Your task to perform on an android device: Search for hotels in Philadelphia Image 0: 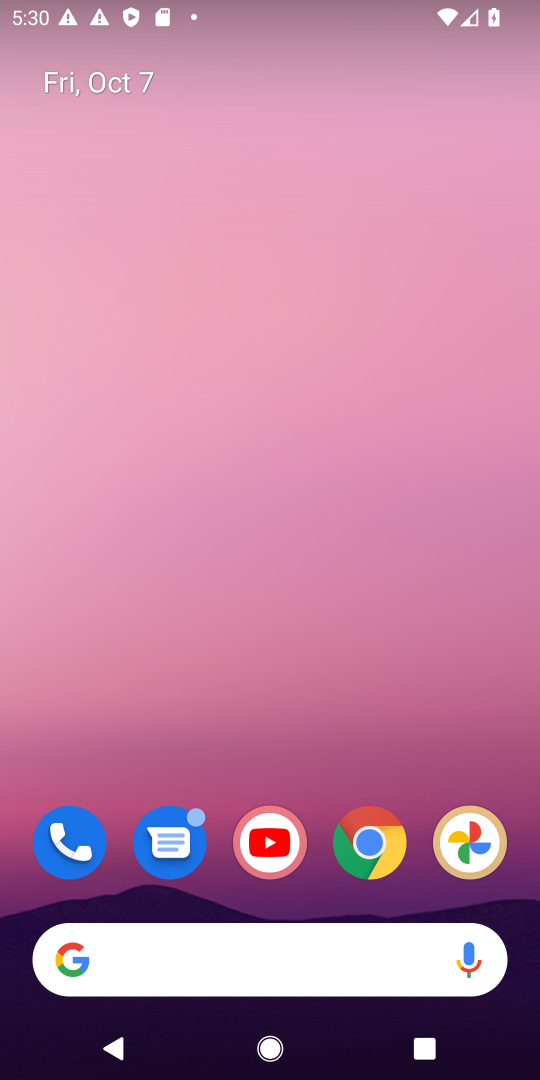
Step 0: click (228, 972)
Your task to perform on an android device: Search for hotels in Philadelphia Image 1: 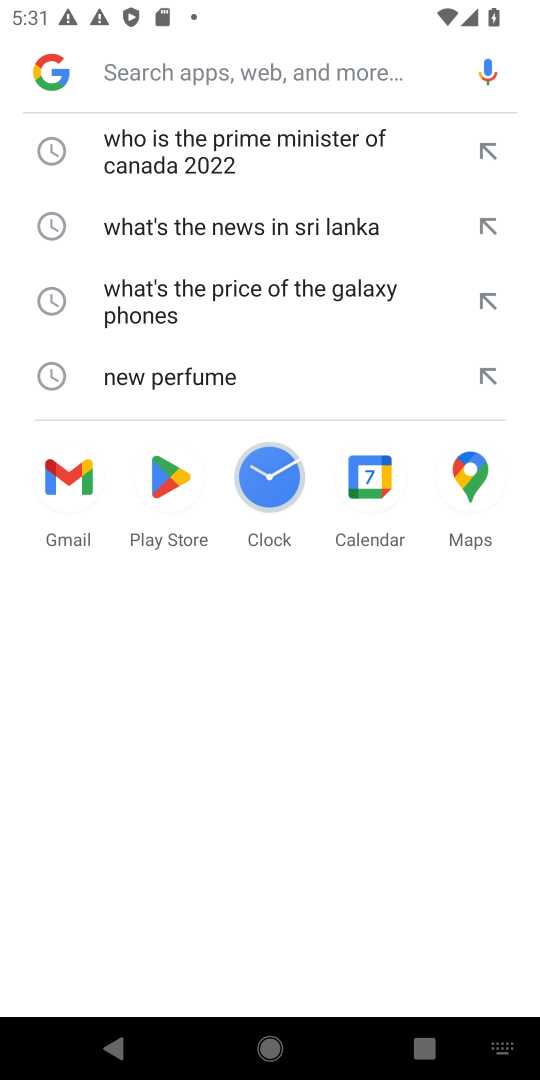
Step 1: click (279, 78)
Your task to perform on an android device: Search for hotels in Philadelphia Image 2: 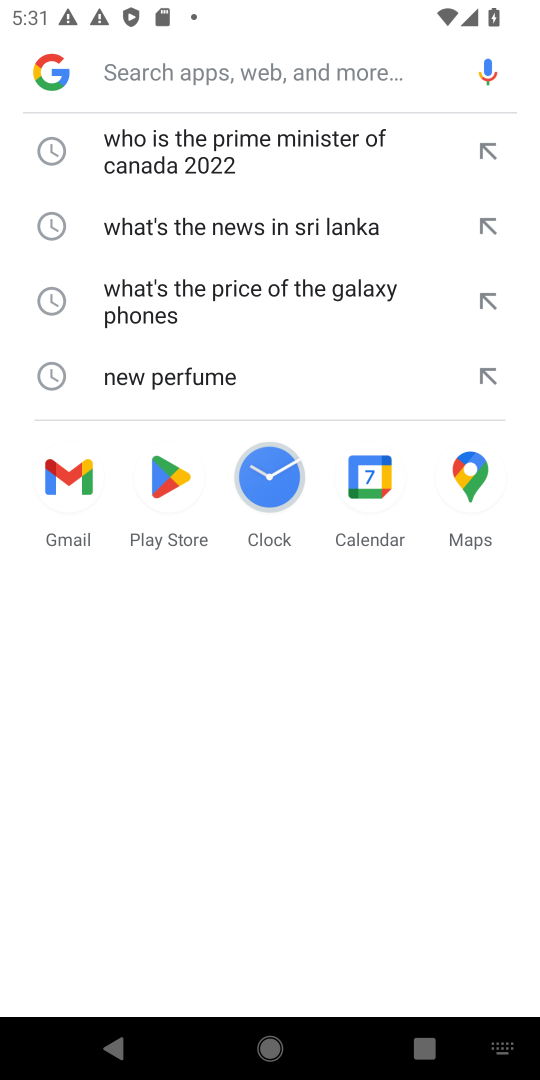
Step 2: type " hotels in Philadelphia"
Your task to perform on an android device: Search for hotels in Philadelphia Image 3: 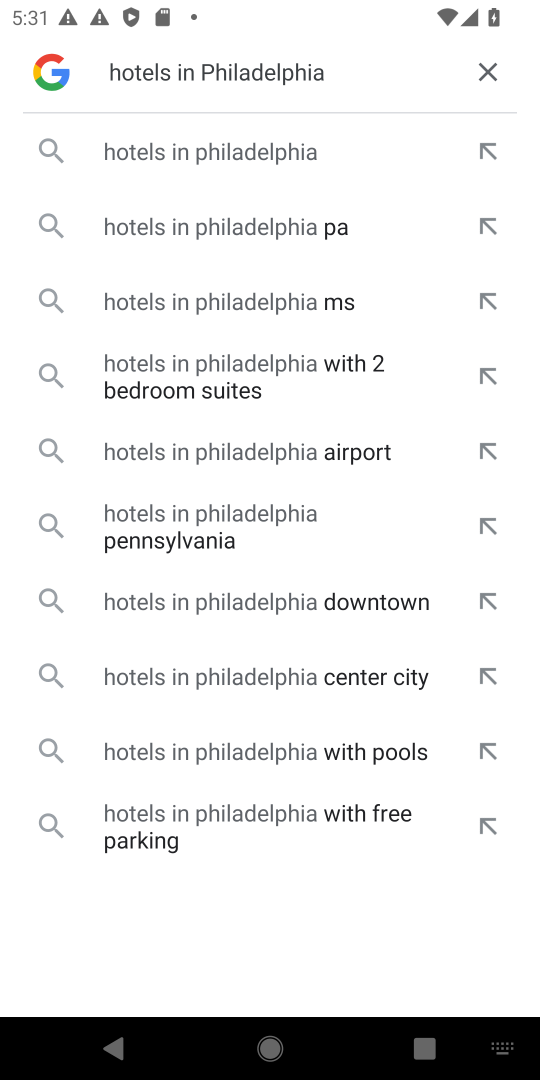
Step 3: click (251, 155)
Your task to perform on an android device: Search for hotels in Philadelphia Image 4: 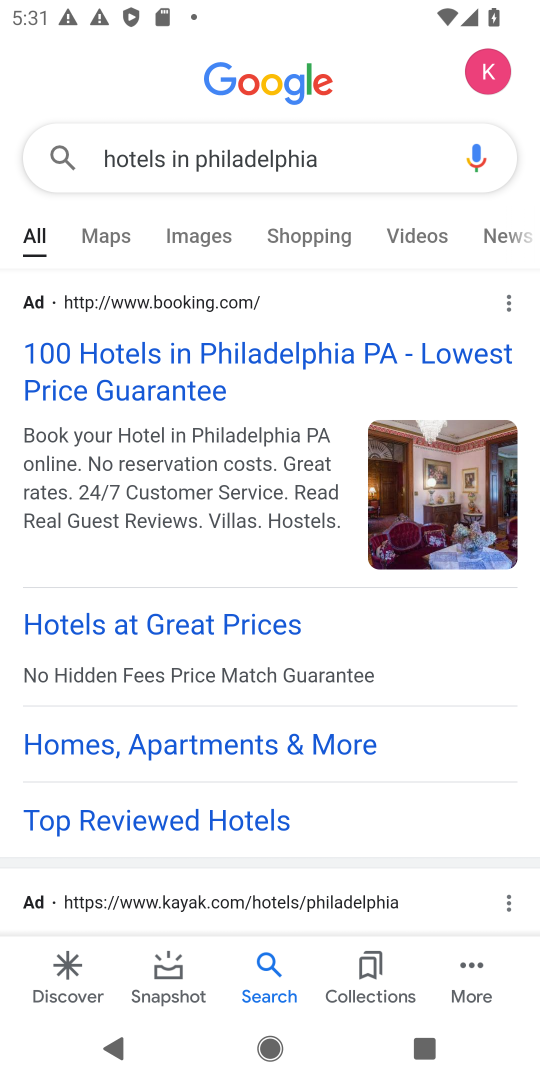
Step 4: drag from (224, 815) to (300, 444)
Your task to perform on an android device: Search for hotels in Philadelphia Image 5: 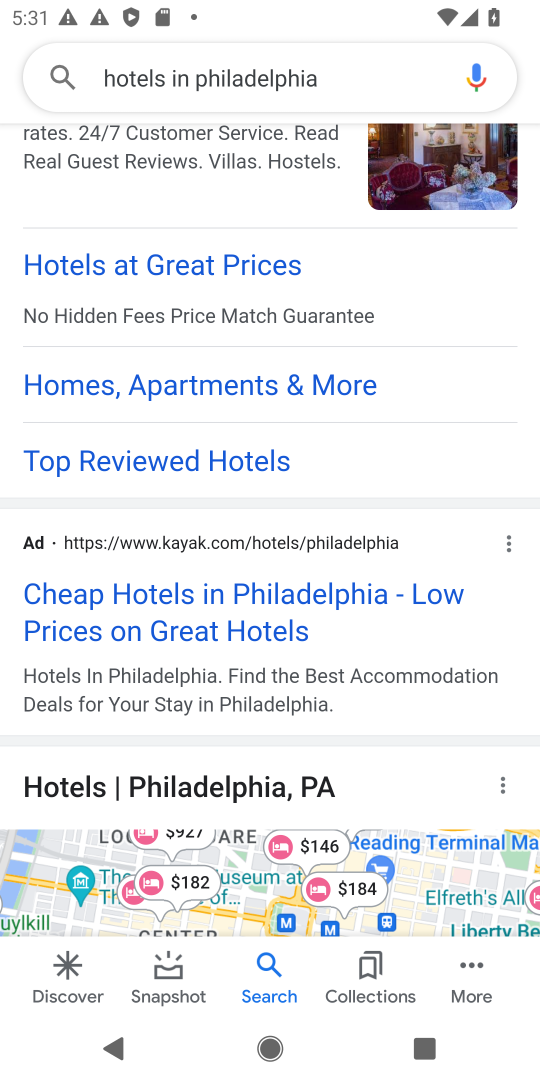
Step 5: drag from (253, 867) to (386, 316)
Your task to perform on an android device: Search for hotels in Philadelphia Image 6: 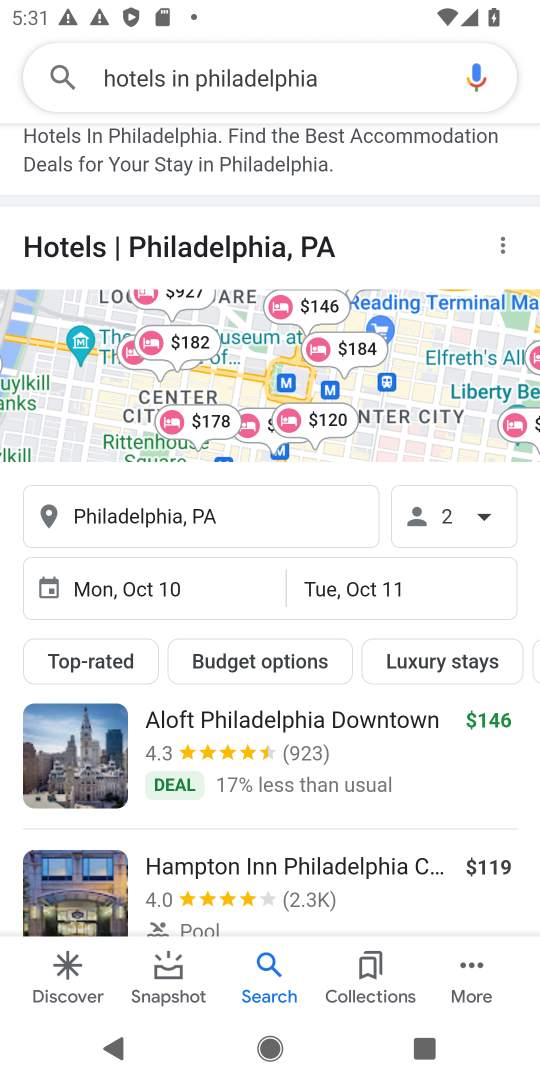
Step 6: drag from (356, 822) to (472, 179)
Your task to perform on an android device: Search for hotels in Philadelphia Image 7: 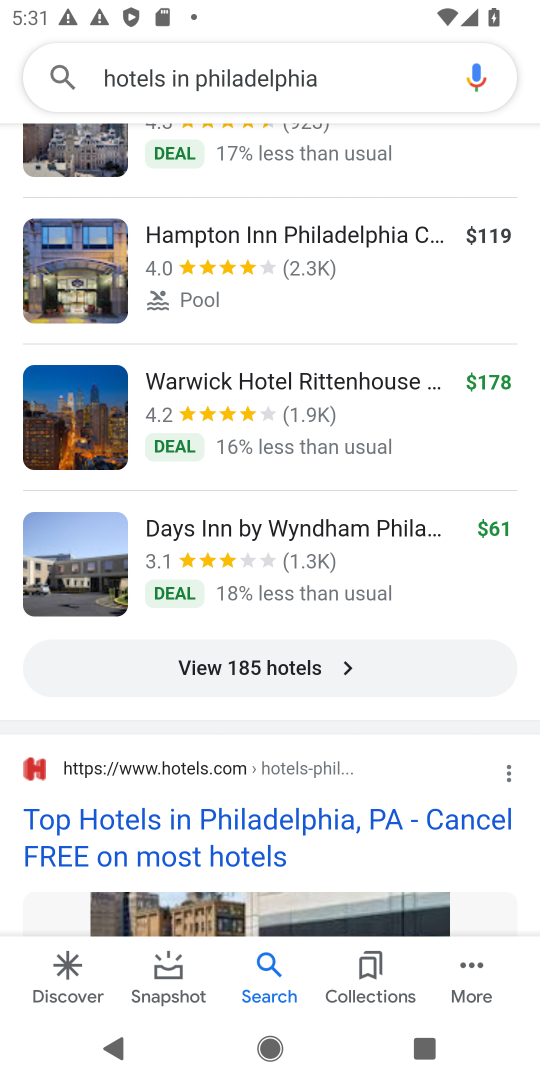
Step 7: drag from (305, 665) to (380, 287)
Your task to perform on an android device: Search for hotels in Philadelphia Image 8: 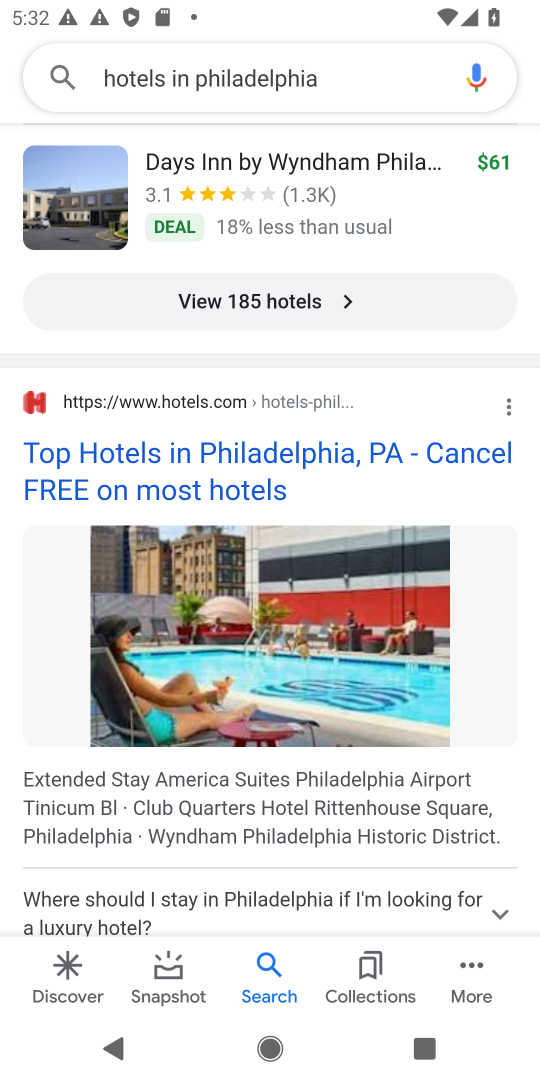
Step 8: drag from (335, 777) to (353, 671)
Your task to perform on an android device: Search for hotels in Philadelphia Image 9: 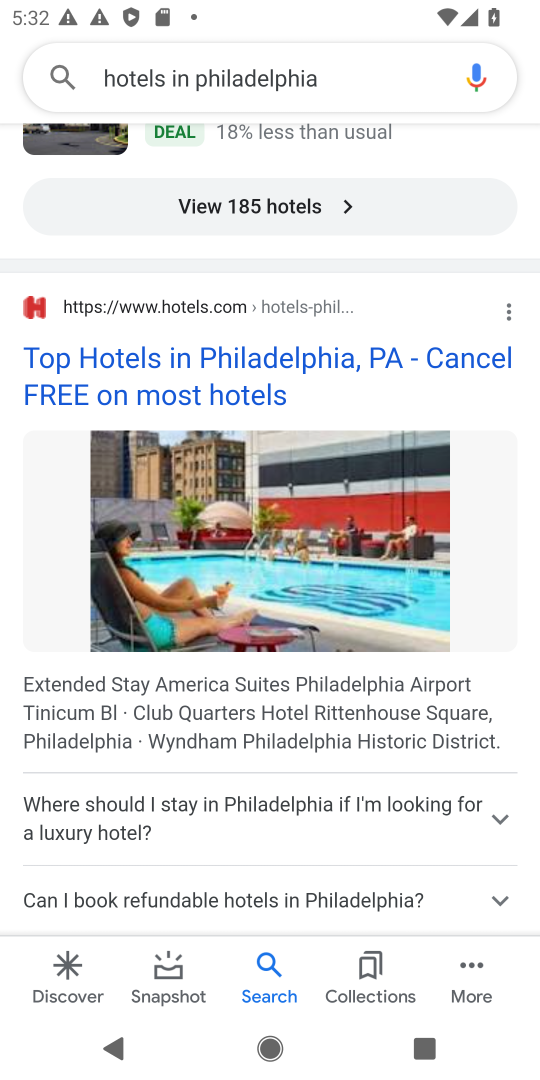
Step 9: click (207, 341)
Your task to perform on an android device: Search for hotels in Philadelphia Image 10: 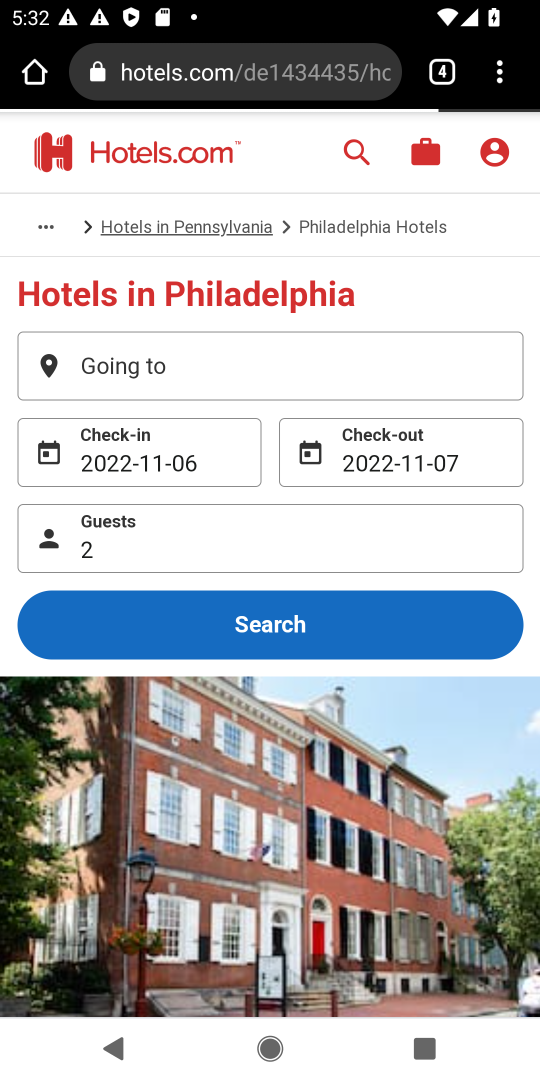
Step 10: task complete